Your task to perform on an android device: turn off javascript in the chrome app Image 0: 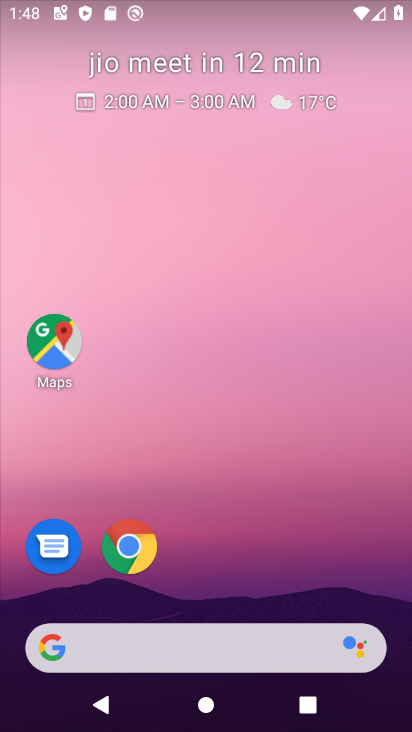
Step 0: drag from (227, 575) to (239, 42)
Your task to perform on an android device: turn off javascript in the chrome app Image 1: 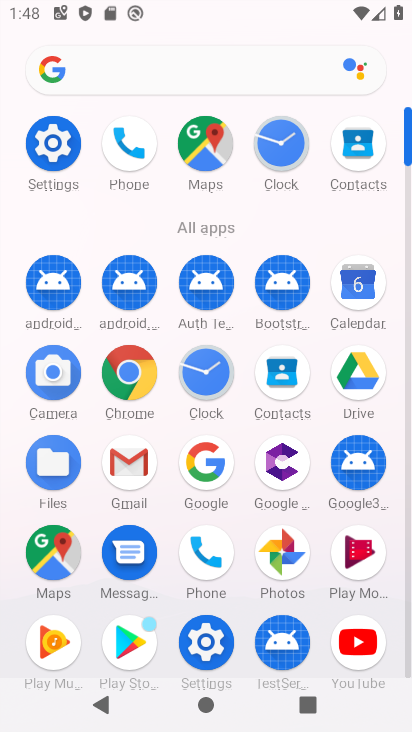
Step 1: click (121, 390)
Your task to perform on an android device: turn off javascript in the chrome app Image 2: 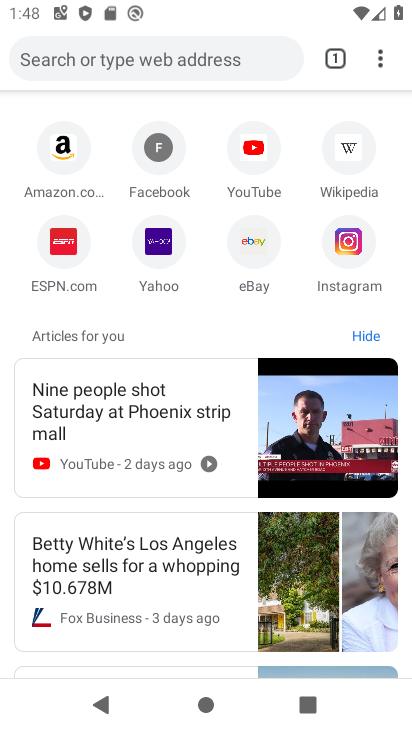
Step 2: click (391, 59)
Your task to perform on an android device: turn off javascript in the chrome app Image 3: 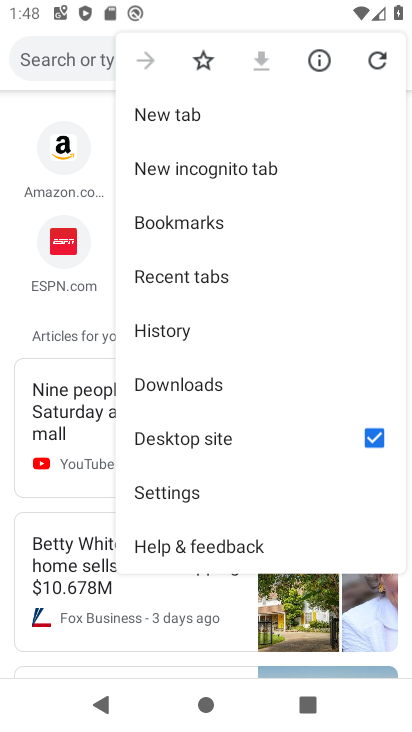
Step 3: click (229, 487)
Your task to perform on an android device: turn off javascript in the chrome app Image 4: 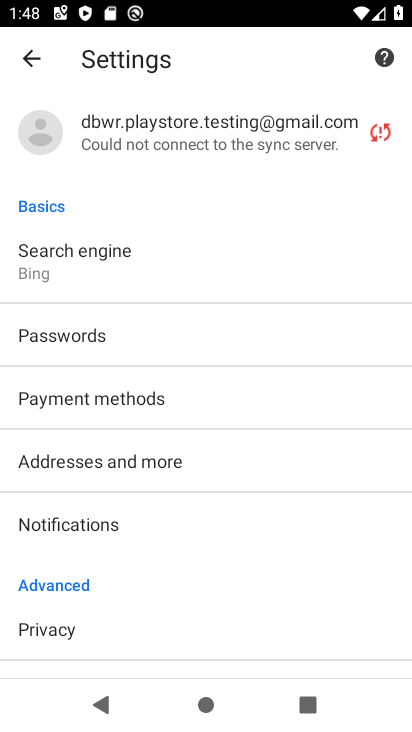
Step 4: drag from (198, 603) to (224, 270)
Your task to perform on an android device: turn off javascript in the chrome app Image 5: 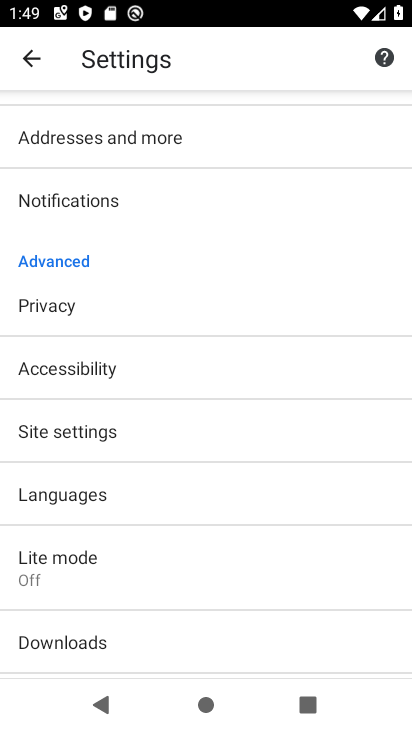
Step 5: click (228, 440)
Your task to perform on an android device: turn off javascript in the chrome app Image 6: 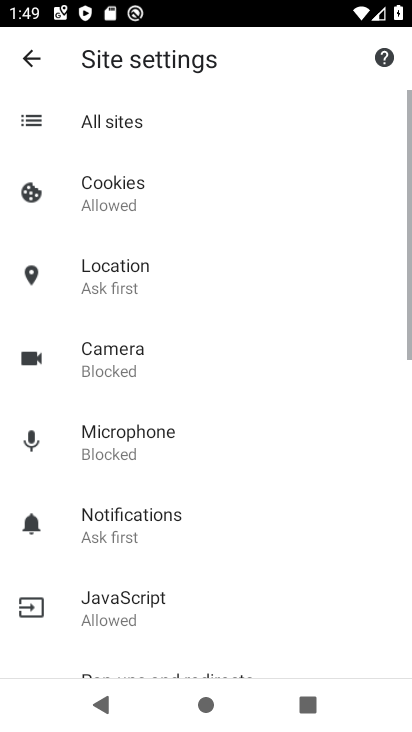
Step 6: drag from (187, 579) to (210, 423)
Your task to perform on an android device: turn off javascript in the chrome app Image 7: 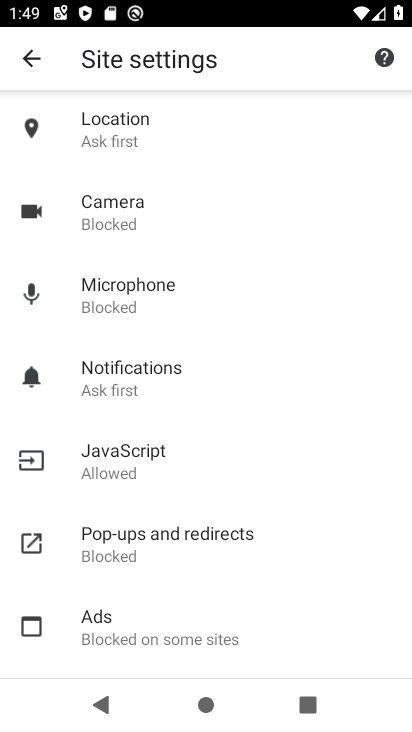
Step 7: click (177, 450)
Your task to perform on an android device: turn off javascript in the chrome app Image 8: 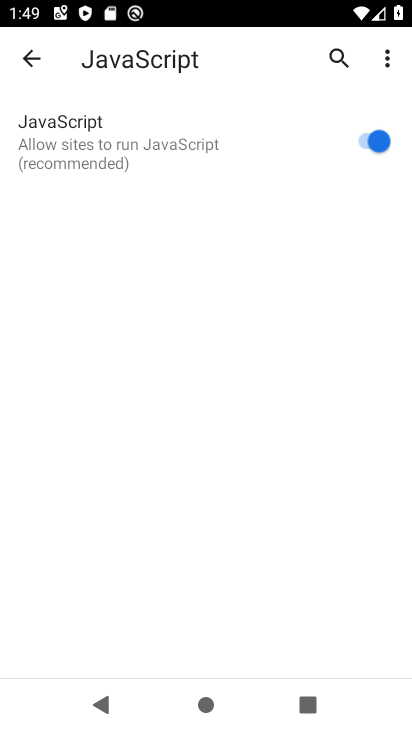
Step 8: click (358, 140)
Your task to perform on an android device: turn off javascript in the chrome app Image 9: 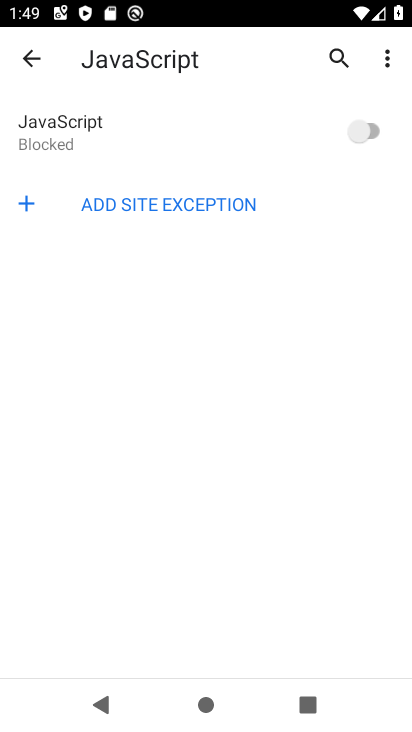
Step 9: task complete